Your task to perform on an android device: toggle airplane mode Image 0: 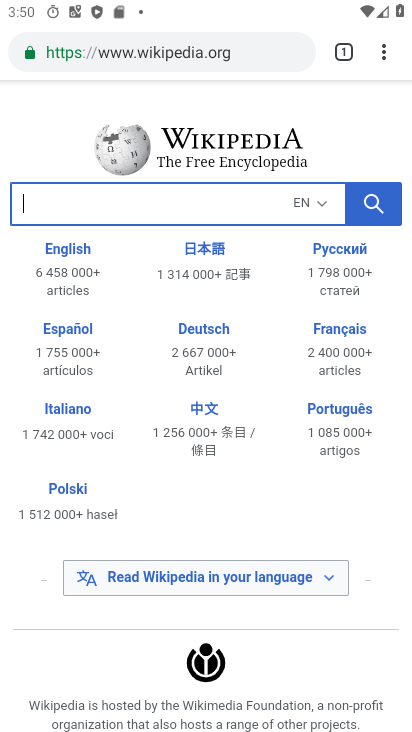
Step 0: press home button
Your task to perform on an android device: toggle airplane mode Image 1: 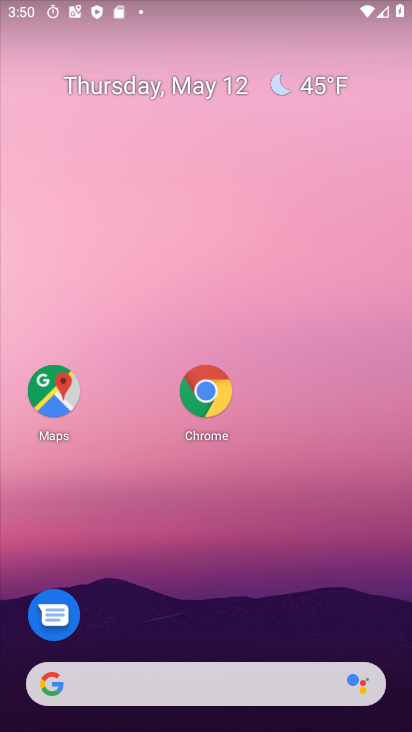
Step 1: drag from (214, 597) to (226, 56)
Your task to perform on an android device: toggle airplane mode Image 2: 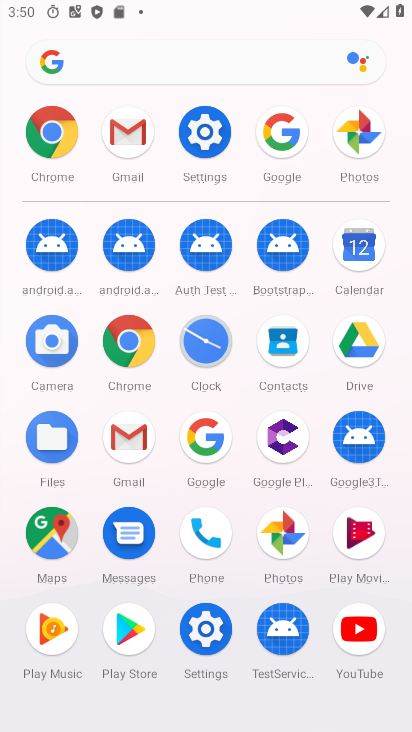
Step 2: click (211, 633)
Your task to perform on an android device: toggle airplane mode Image 3: 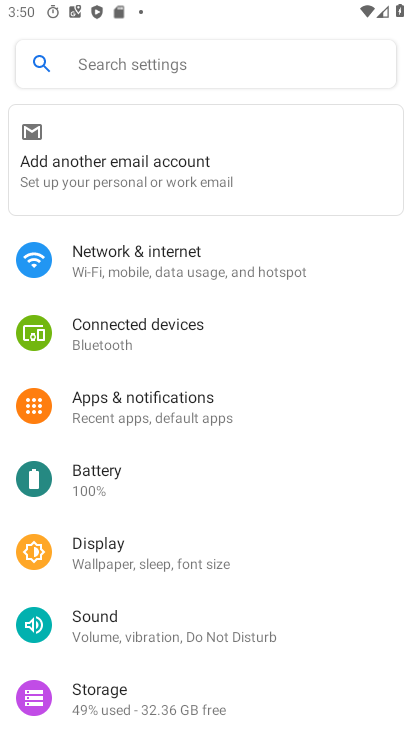
Step 3: click (160, 265)
Your task to perform on an android device: toggle airplane mode Image 4: 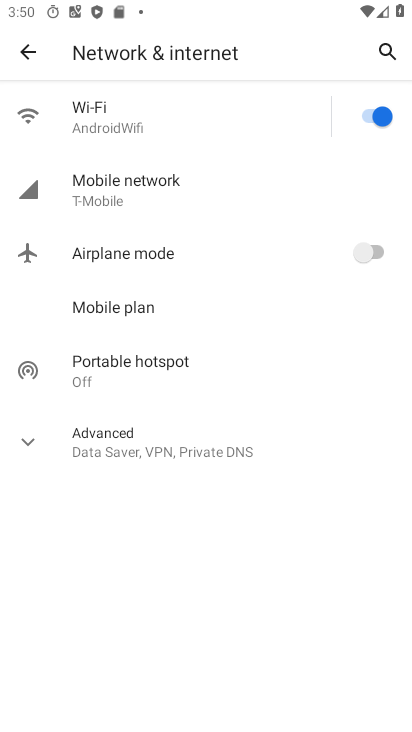
Step 4: click (373, 255)
Your task to perform on an android device: toggle airplane mode Image 5: 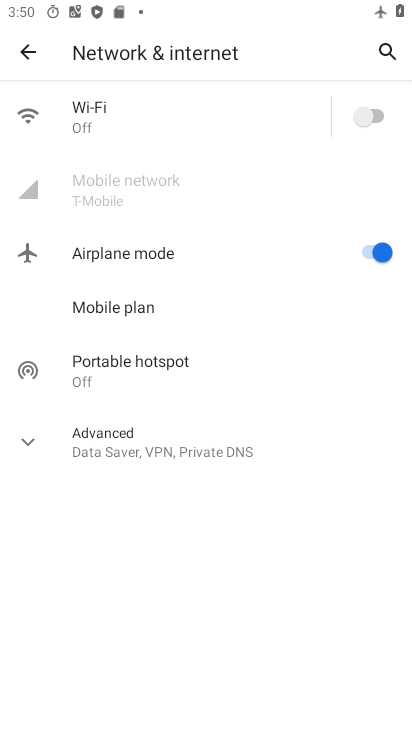
Step 5: task complete